Your task to perform on an android device: Open Android settings Image 0: 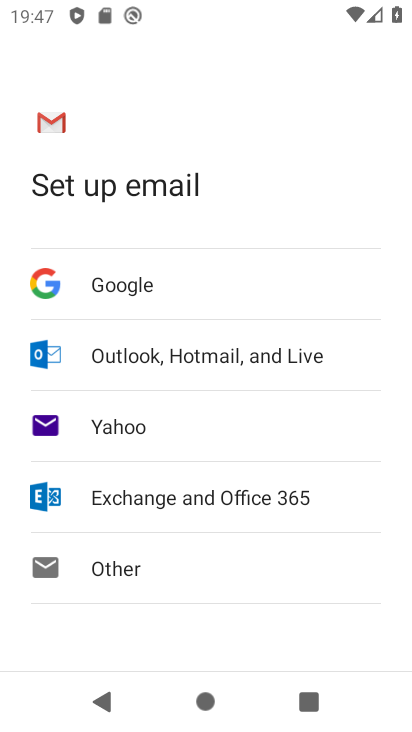
Step 0: press home button
Your task to perform on an android device: Open Android settings Image 1: 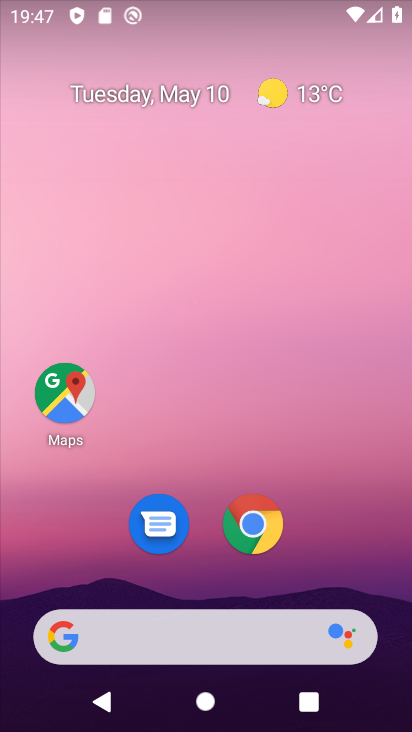
Step 1: drag from (333, 512) to (342, 33)
Your task to perform on an android device: Open Android settings Image 2: 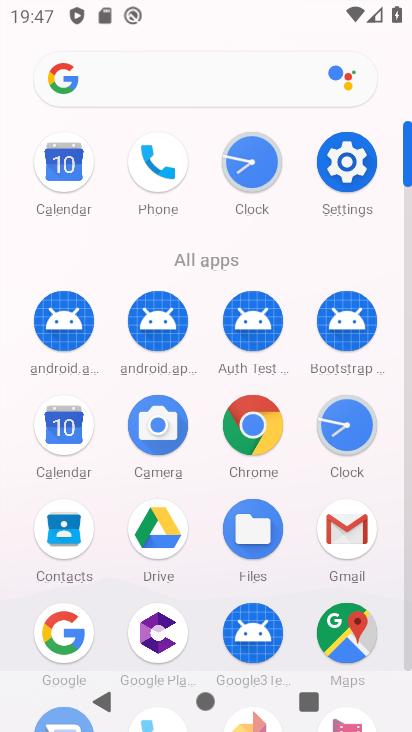
Step 2: click (337, 167)
Your task to perform on an android device: Open Android settings Image 3: 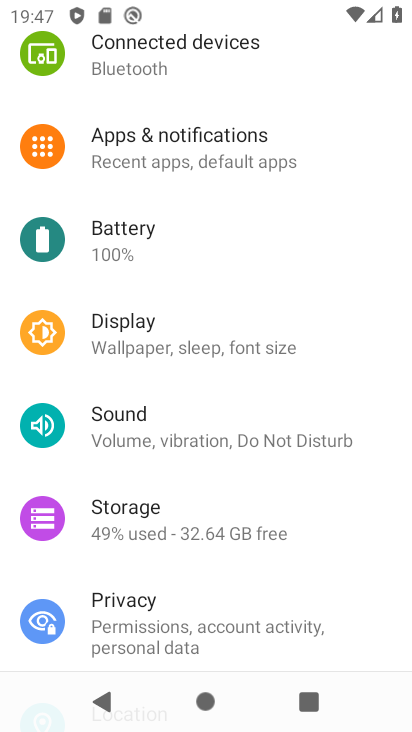
Step 3: drag from (205, 583) to (251, 83)
Your task to perform on an android device: Open Android settings Image 4: 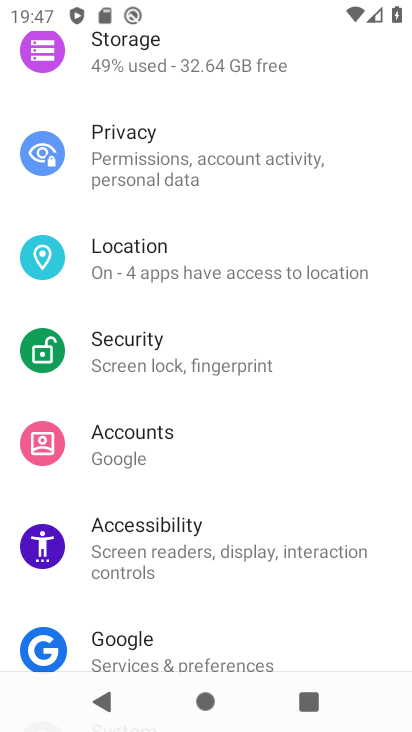
Step 4: drag from (191, 606) to (243, 128)
Your task to perform on an android device: Open Android settings Image 5: 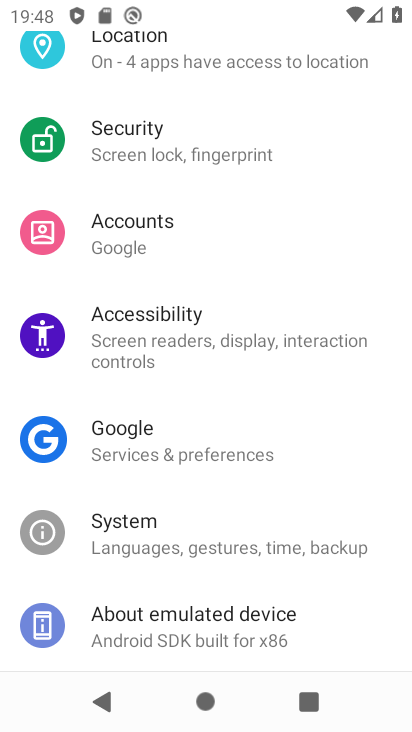
Step 5: click (194, 619)
Your task to perform on an android device: Open Android settings Image 6: 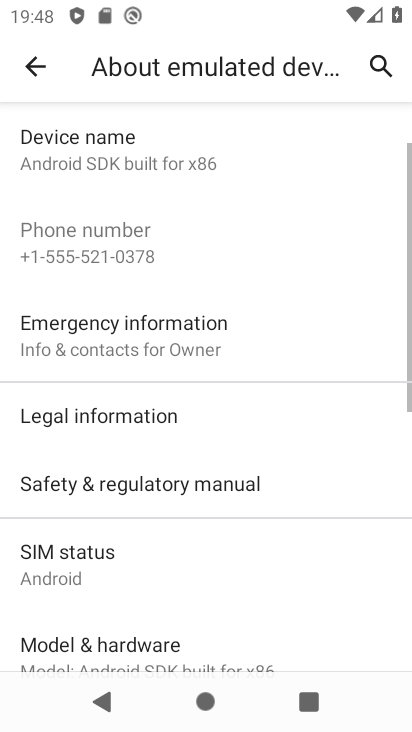
Step 6: task complete